Your task to perform on an android device: change the clock display to analog Image 0: 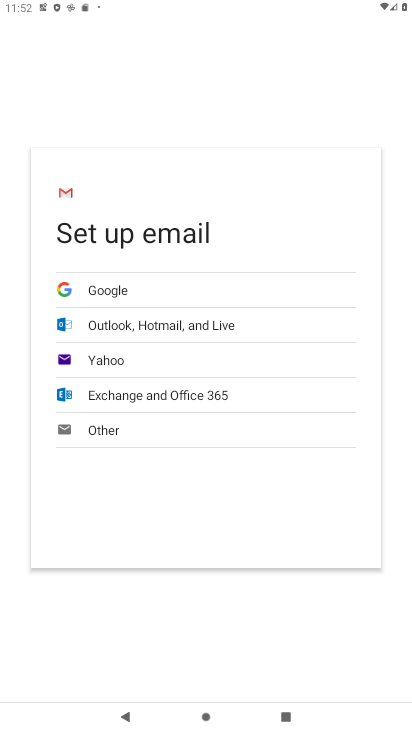
Step 0: press home button
Your task to perform on an android device: change the clock display to analog Image 1: 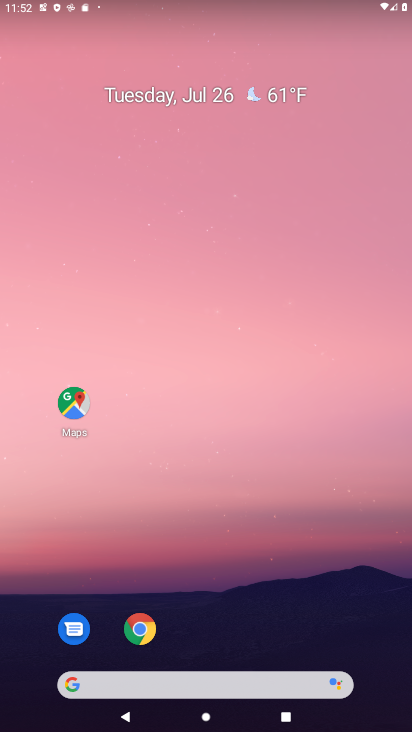
Step 1: drag from (209, 650) to (209, 157)
Your task to perform on an android device: change the clock display to analog Image 2: 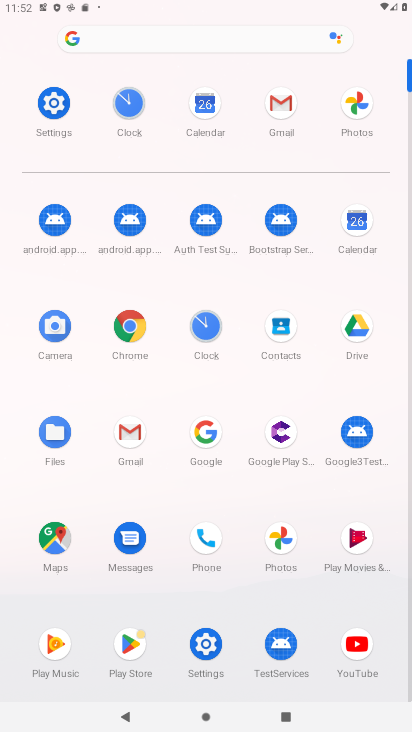
Step 2: click (133, 125)
Your task to perform on an android device: change the clock display to analog Image 3: 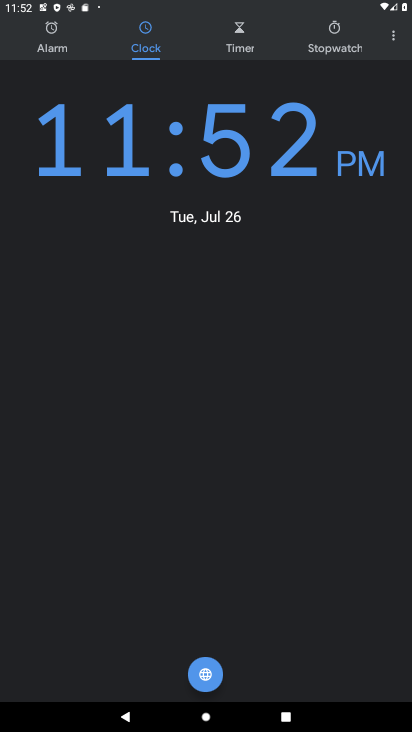
Step 3: click (393, 47)
Your task to perform on an android device: change the clock display to analog Image 4: 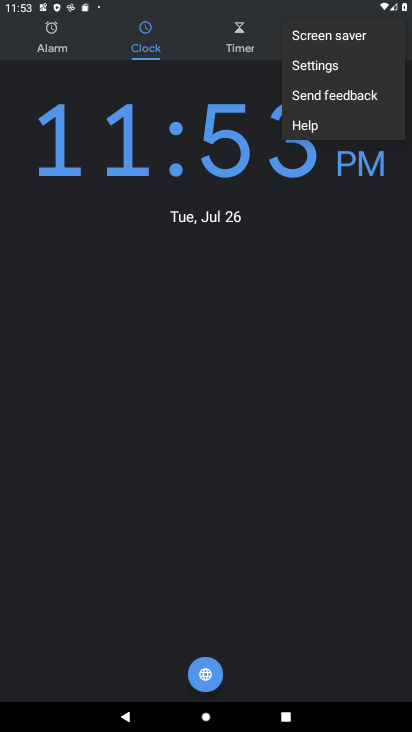
Step 4: click (351, 71)
Your task to perform on an android device: change the clock display to analog Image 5: 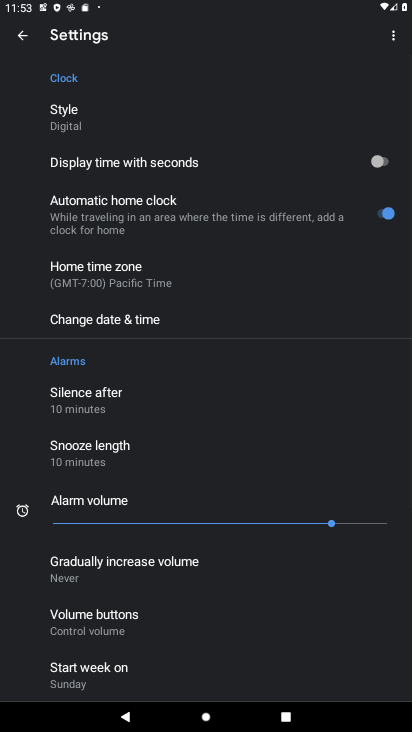
Step 5: task complete